Your task to perform on an android device: set the stopwatch Image 0: 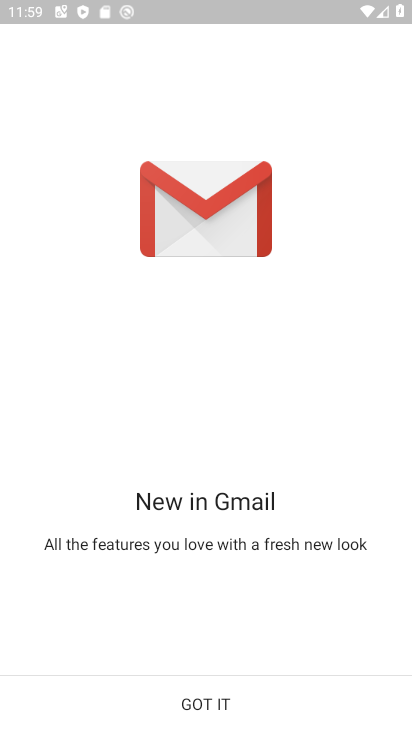
Step 0: press home button
Your task to perform on an android device: set the stopwatch Image 1: 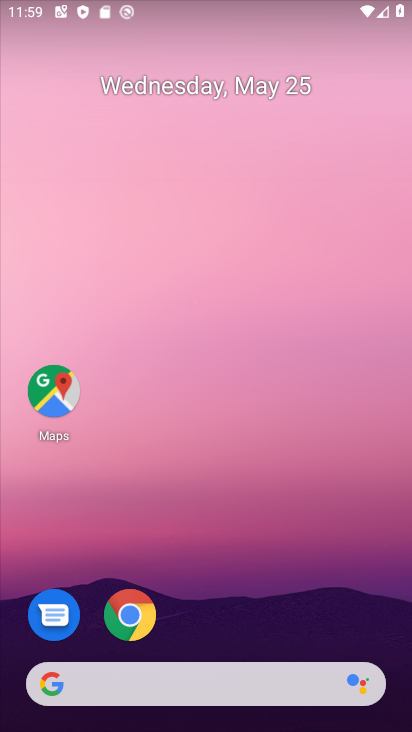
Step 1: drag from (248, 625) to (197, 217)
Your task to perform on an android device: set the stopwatch Image 2: 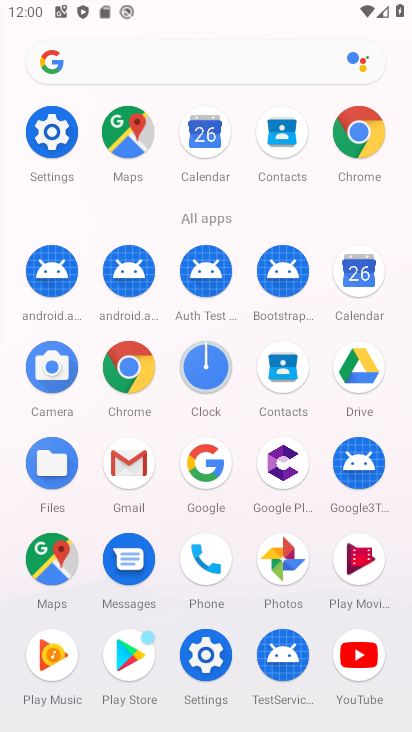
Step 2: click (210, 373)
Your task to perform on an android device: set the stopwatch Image 3: 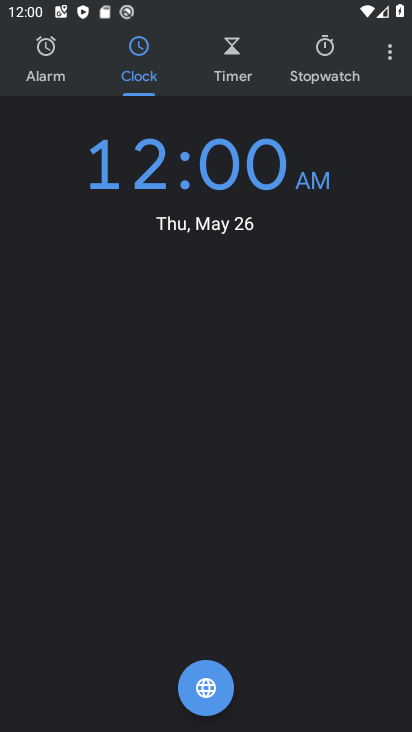
Step 3: click (340, 62)
Your task to perform on an android device: set the stopwatch Image 4: 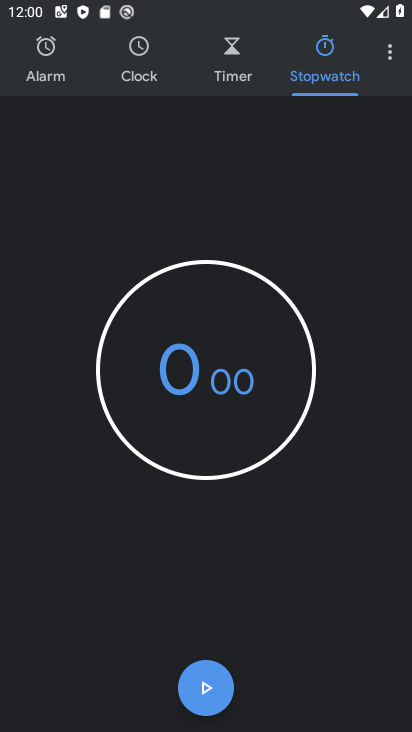
Step 4: click (231, 696)
Your task to perform on an android device: set the stopwatch Image 5: 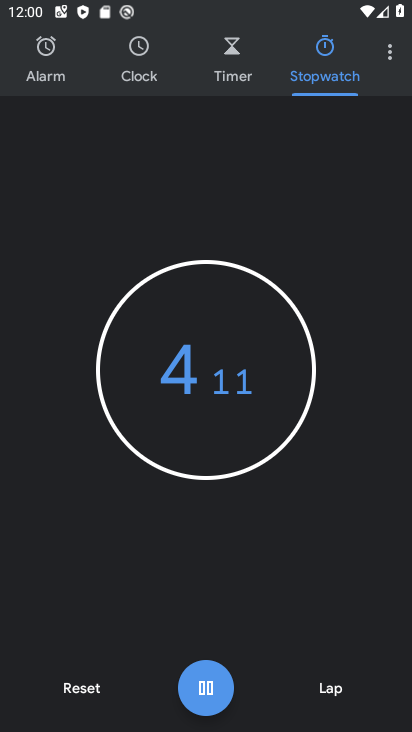
Step 5: task complete